Your task to perform on an android device: change the clock display to digital Image 0: 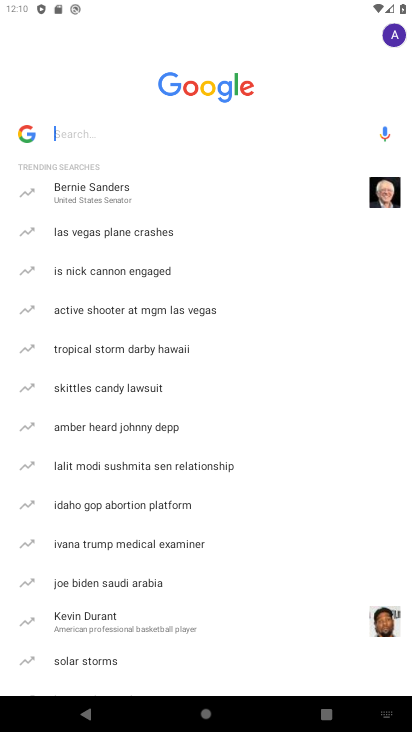
Step 0: press home button
Your task to perform on an android device: change the clock display to digital Image 1: 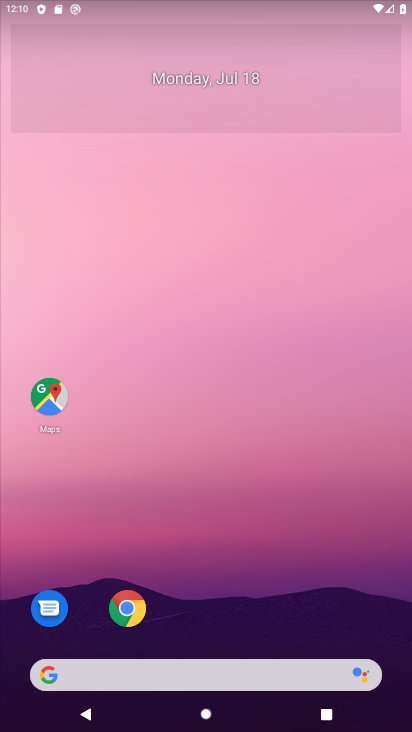
Step 1: drag from (310, 587) to (344, 61)
Your task to perform on an android device: change the clock display to digital Image 2: 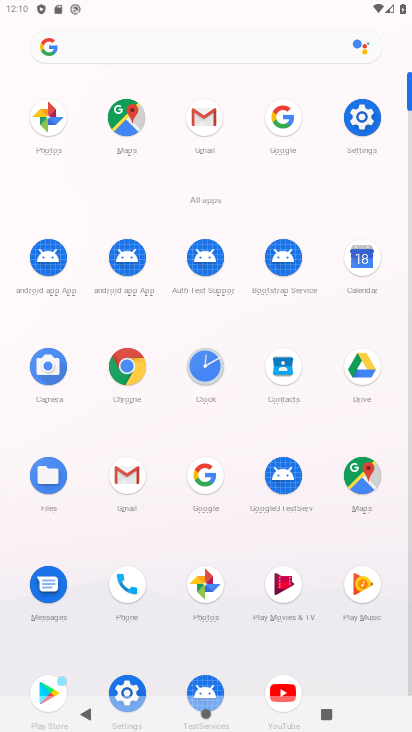
Step 2: click (212, 359)
Your task to perform on an android device: change the clock display to digital Image 3: 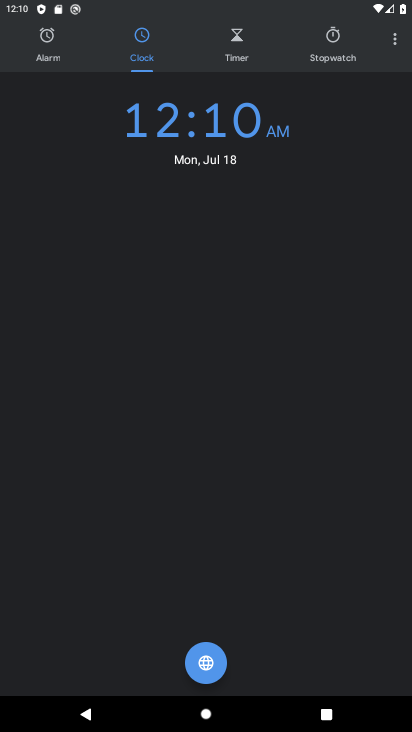
Step 3: click (397, 45)
Your task to perform on an android device: change the clock display to digital Image 4: 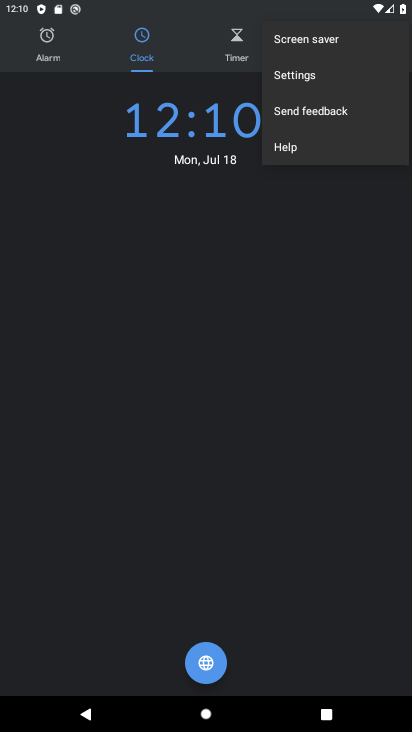
Step 4: click (308, 75)
Your task to perform on an android device: change the clock display to digital Image 5: 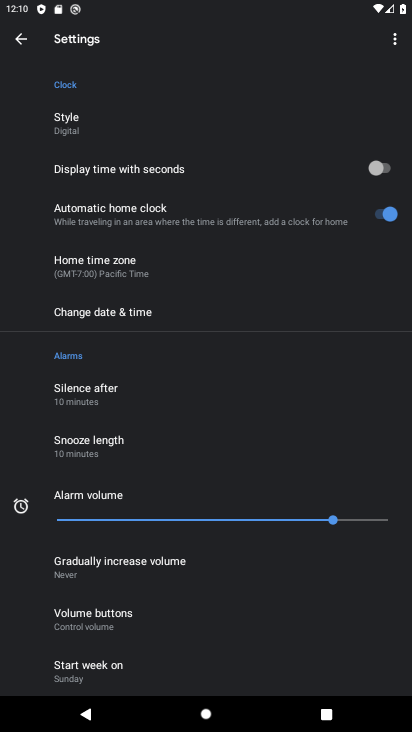
Step 5: click (75, 125)
Your task to perform on an android device: change the clock display to digital Image 6: 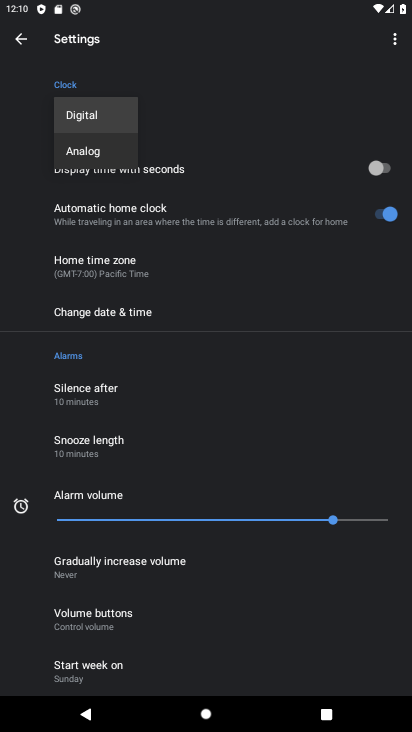
Step 6: click (89, 107)
Your task to perform on an android device: change the clock display to digital Image 7: 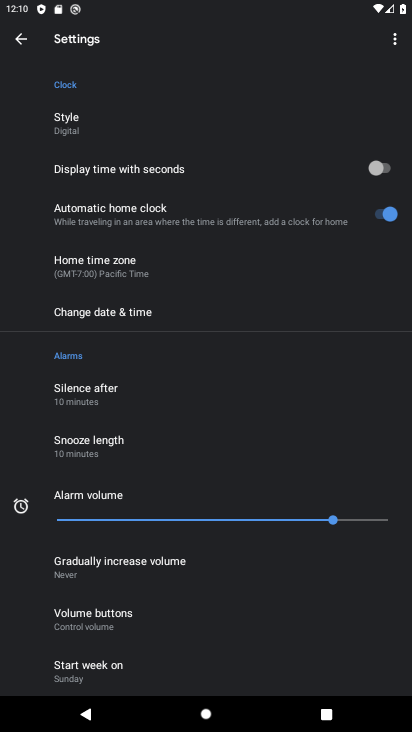
Step 7: task complete